Your task to perform on an android device: show emergency info Image 0: 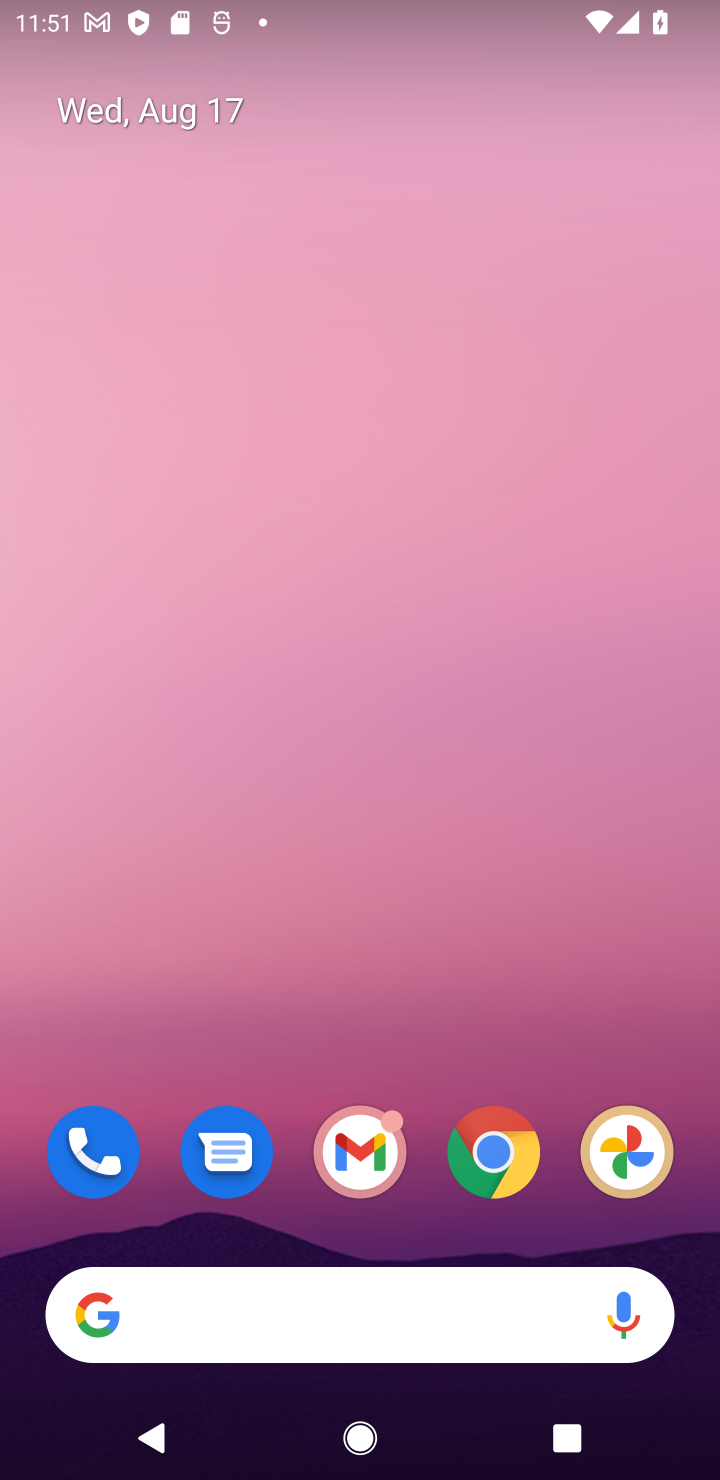
Step 0: drag from (571, 1231) to (274, 18)
Your task to perform on an android device: show emergency info Image 1: 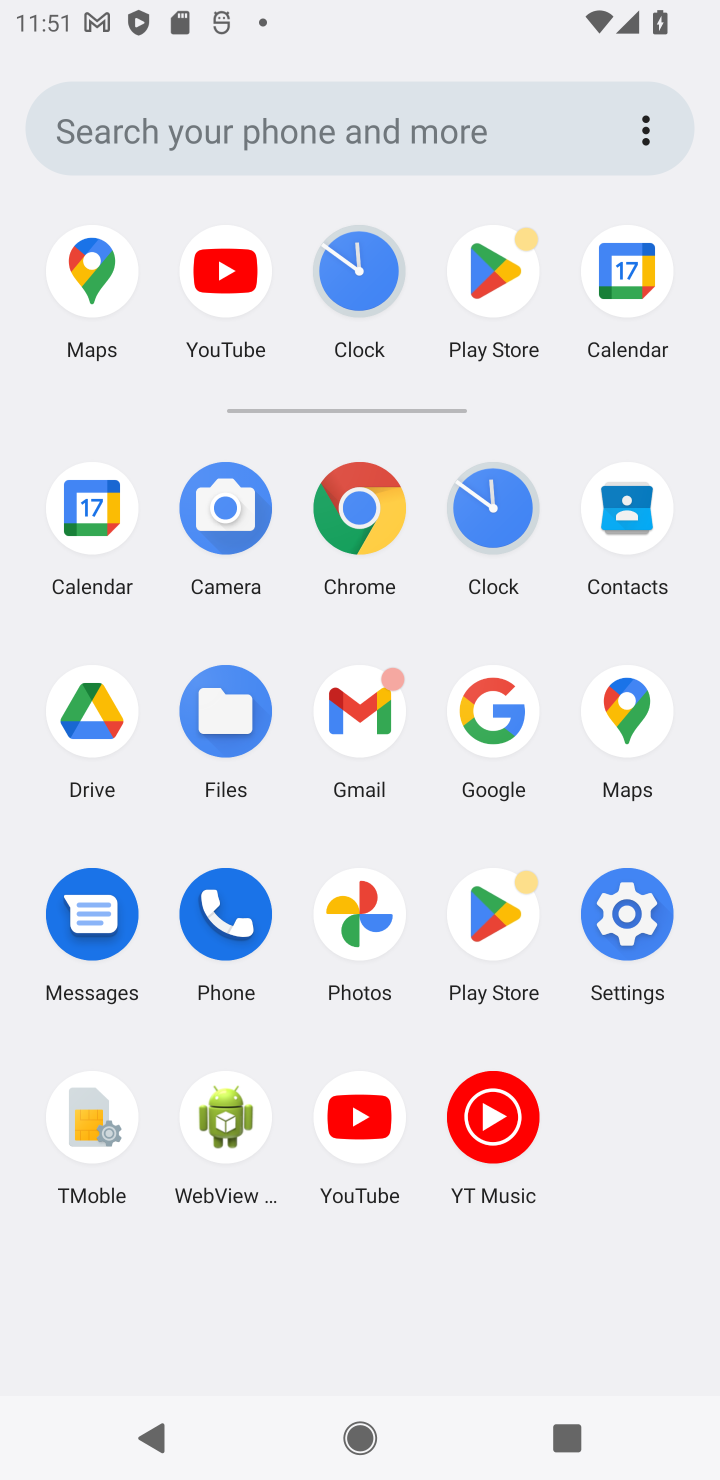
Step 1: click (629, 914)
Your task to perform on an android device: show emergency info Image 2: 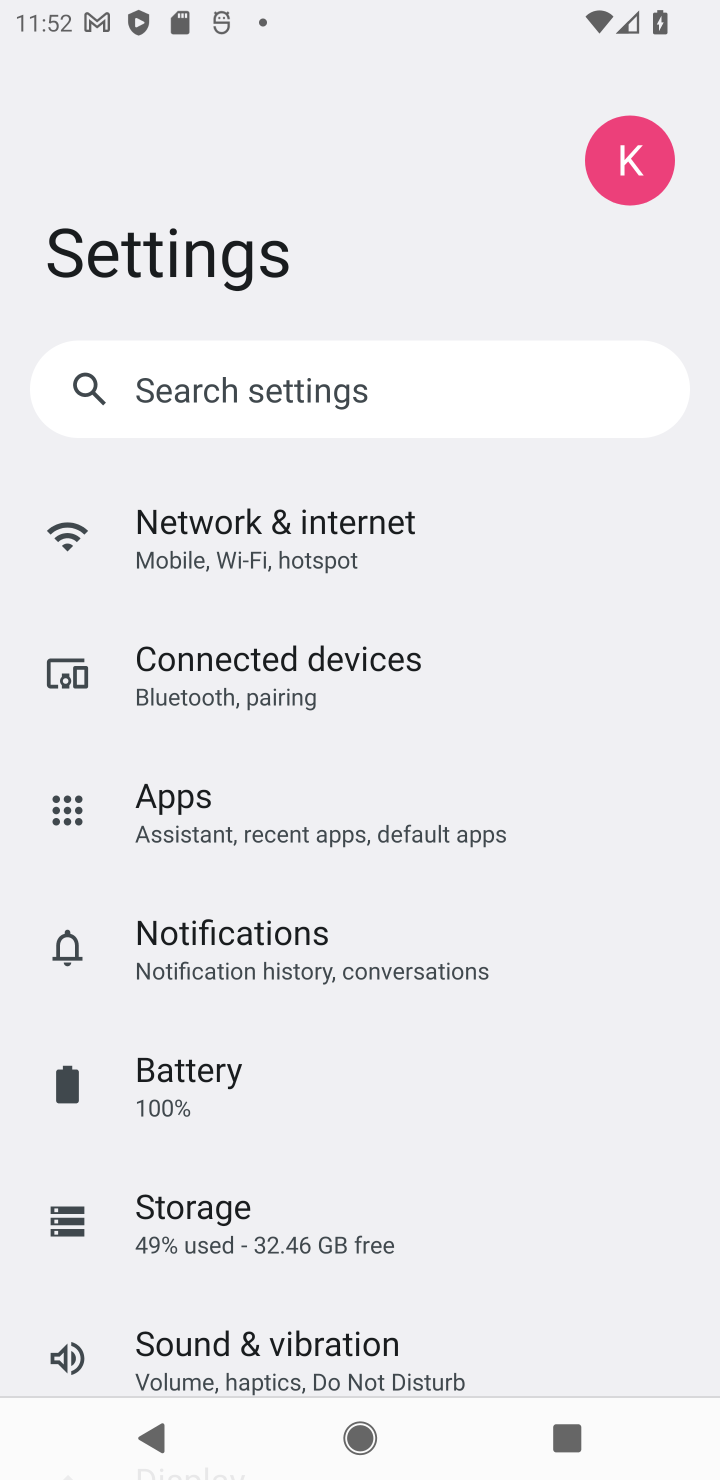
Step 2: task complete